Your task to perform on an android device: manage bookmarks in the chrome app Image 0: 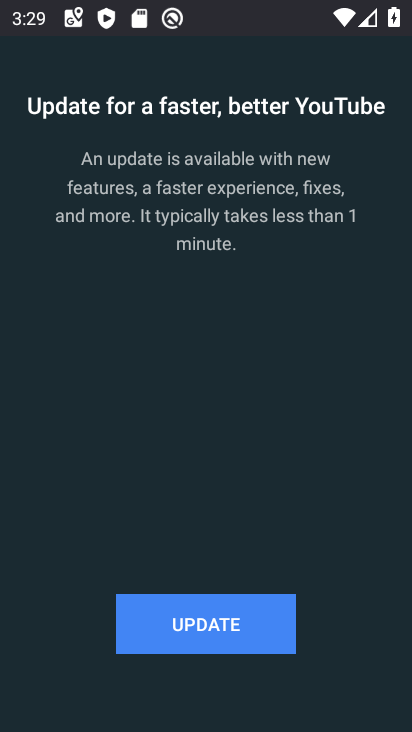
Step 0: press home button
Your task to perform on an android device: manage bookmarks in the chrome app Image 1: 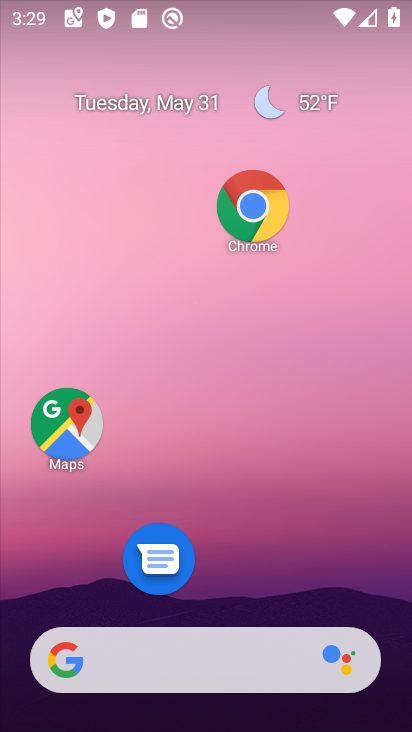
Step 1: click (251, 236)
Your task to perform on an android device: manage bookmarks in the chrome app Image 2: 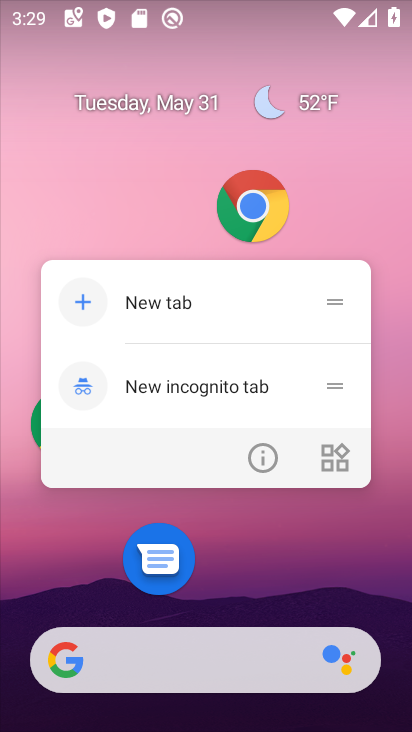
Step 2: click (250, 200)
Your task to perform on an android device: manage bookmarks in the chrome app Image 3: 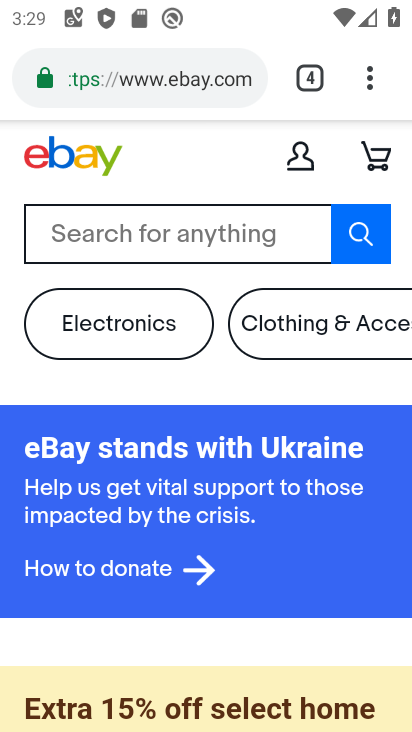
Step 3: task complete